Your task to perform on an android device: Open the calendar and show me this week's events Image 0: 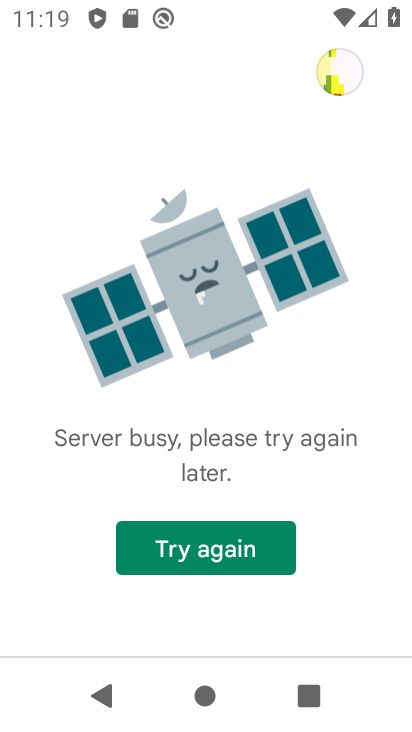
Step 0: press back button
Your task to perform on an android device: Open the calendar and show me this week's events Image 1: 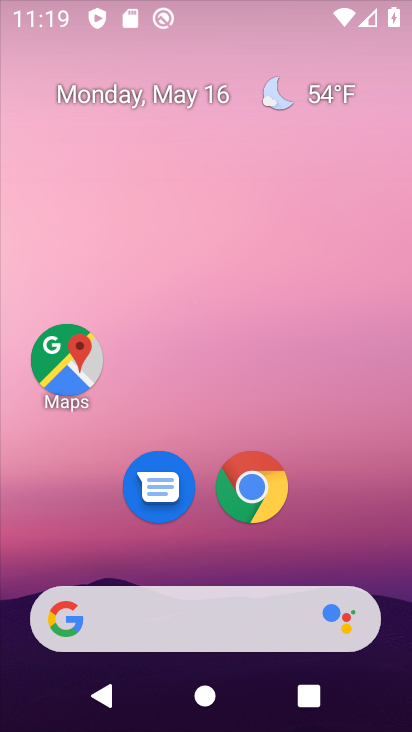
Step 1: drag from (165, 511) to (226, 1)
Your task to perform on an android device: Open the calendar and show me this week's events Image 2: 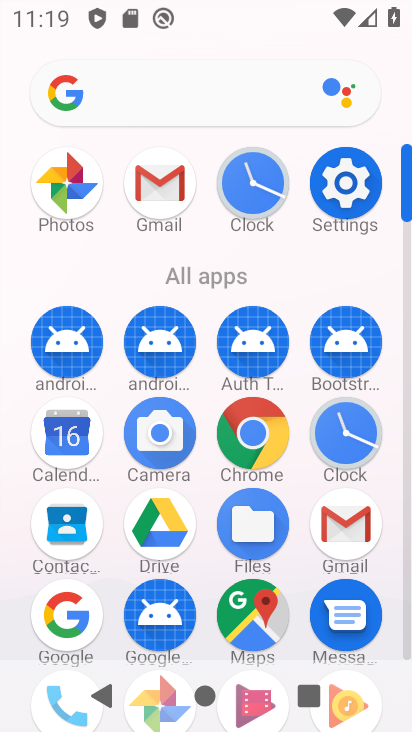
Step 2: click (76, 437)
Your task to perform on an android device: Open the calendar and show me this week's events Image 3: 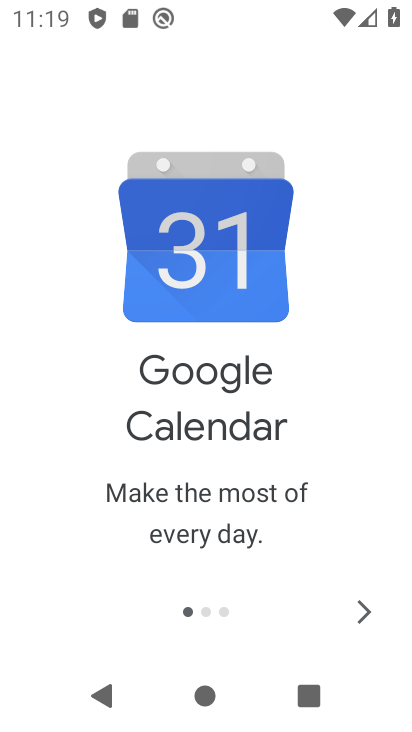
Step 3: click (351, 612)
Your task to perform on an android device: Open the calendar and show me this week's events Image 4: 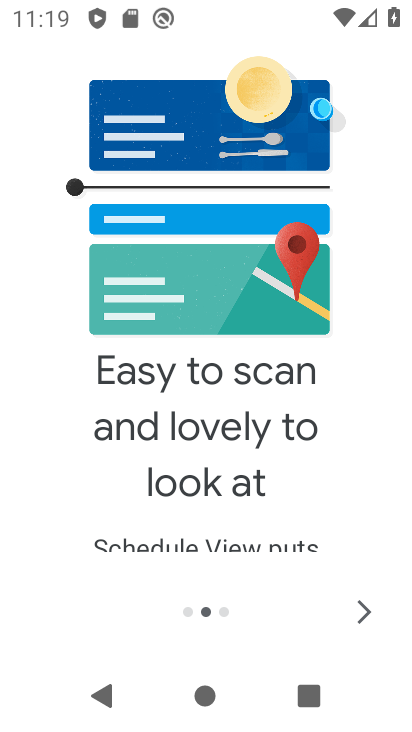
Step 4: click (377, 613)
Your task to perform on an android device: Open the calendar and show me this week's events Image 5: 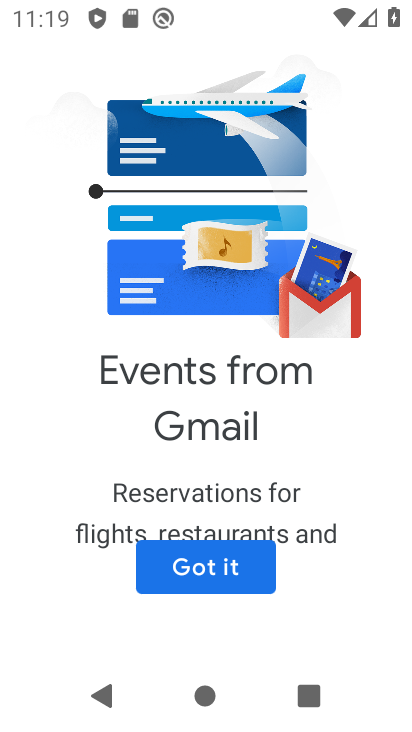
Step 5: click (202, 559)
Your task to perform on an android device: Open the calendar and show me this week's events Image 6: 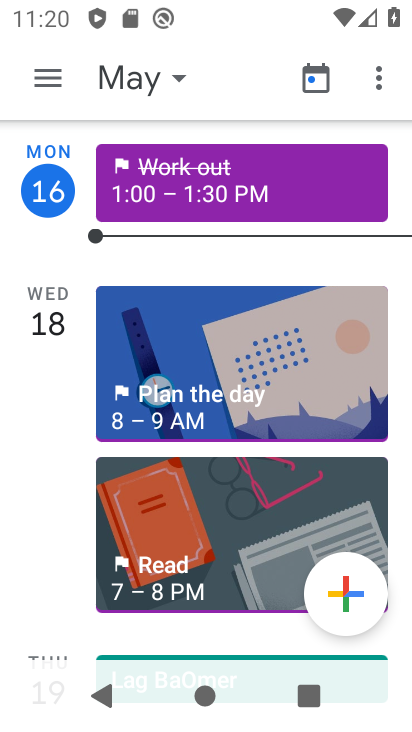
Step 6: drag from (158, 592) to (271, 133)
Your task to perform on an android device: Open the calendar and show me this week's events Image 7: 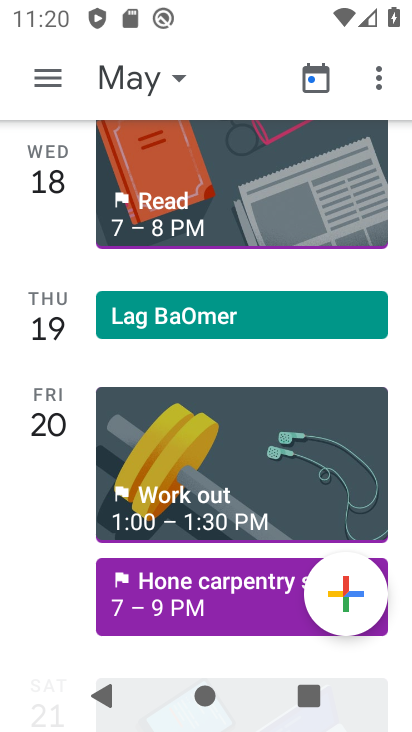
Step 7: drag from (276, 337) to (219, 610)
Your task to perform on an android device: Open the calendar and show me this week's events Image 8: 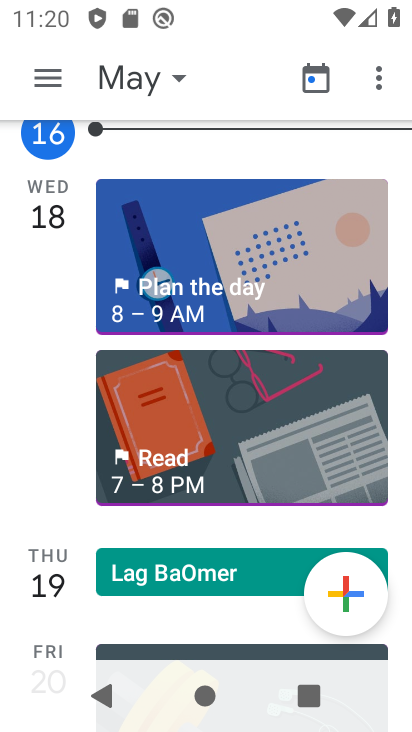
Step 8: drag from (168, 281) to (139, 674)
Your task to perform on an android device: Open the calendar and show me this week's events Image 9: 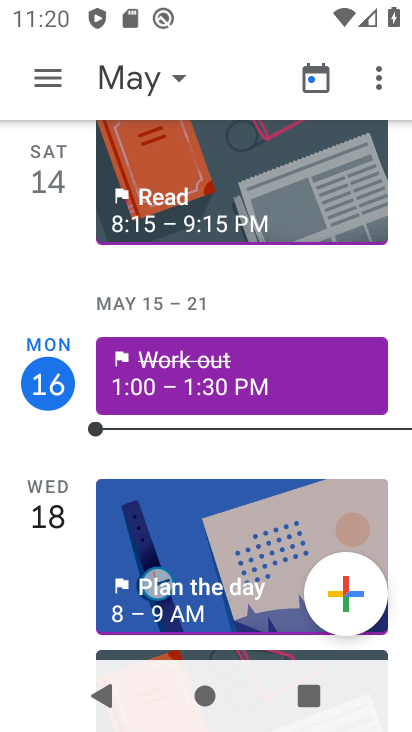
Step 9: drag from (179, 557) to (253, 165)
Your task to perform on an android device: Open the calendar and show me this week's events Image 10: 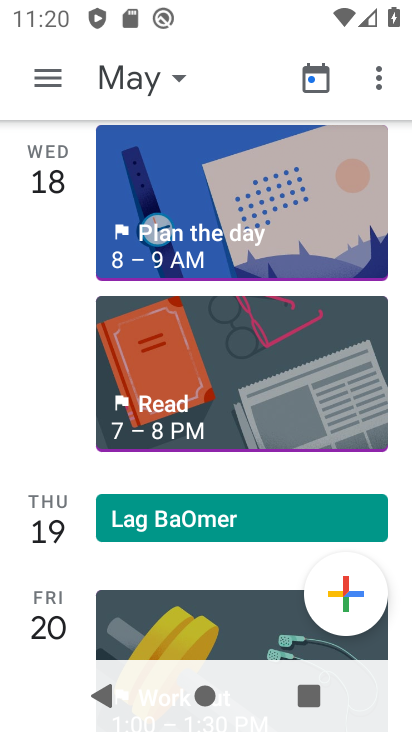
Step 10: click (159, 520)
Your task to perform on an android device: Open the calendar and show me this week's events Image 11: 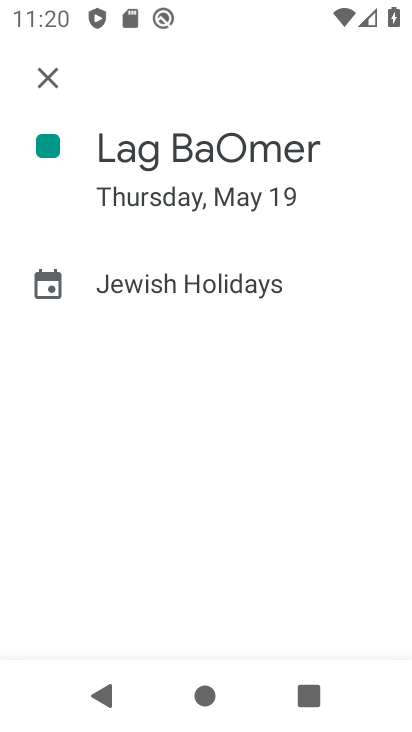
Step 11: task complete